Your task to perform on an android device: Show the shopping cart on walmart. Add "acer nitro" to the cart on walmart Image 0: 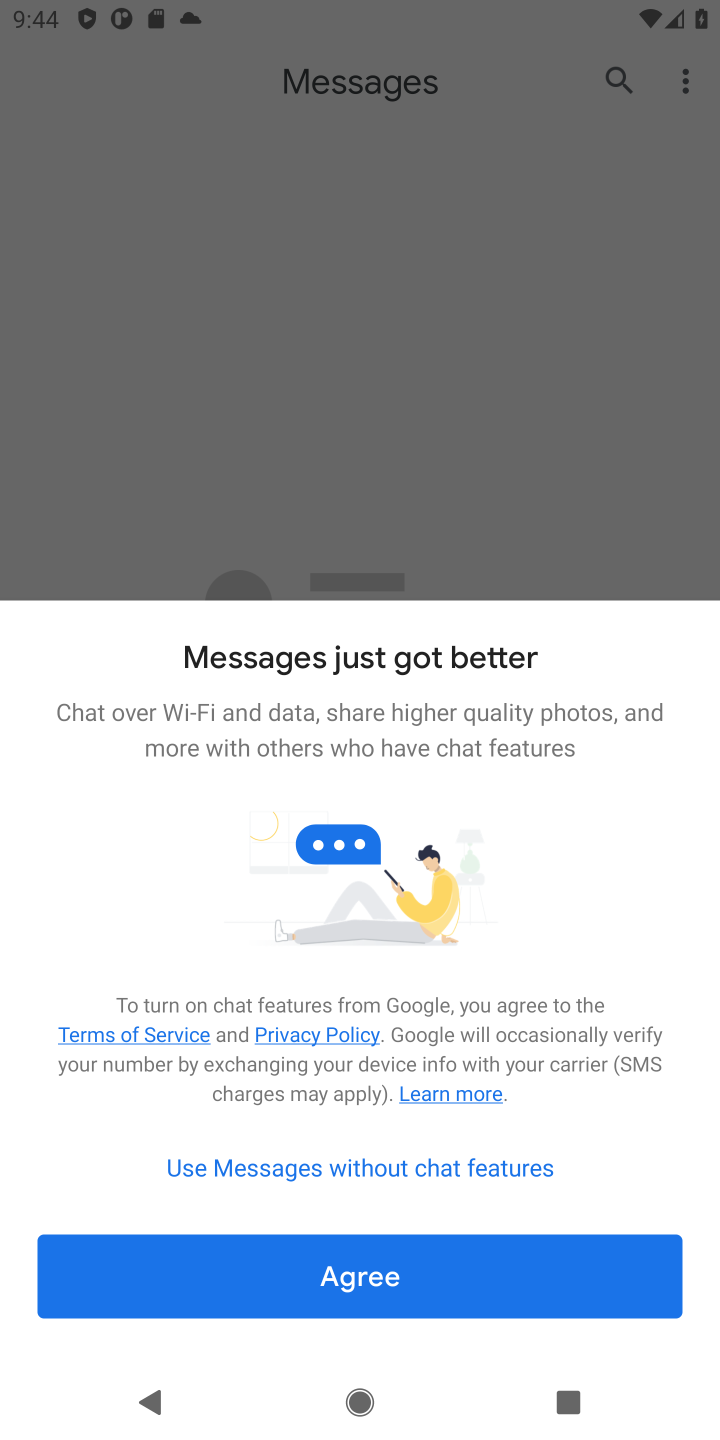
Step 0: press home button
Your task to perform on an android device: Show the shopping cart on walmart. Add "acer nitro" to the cart on walmart Image 1: 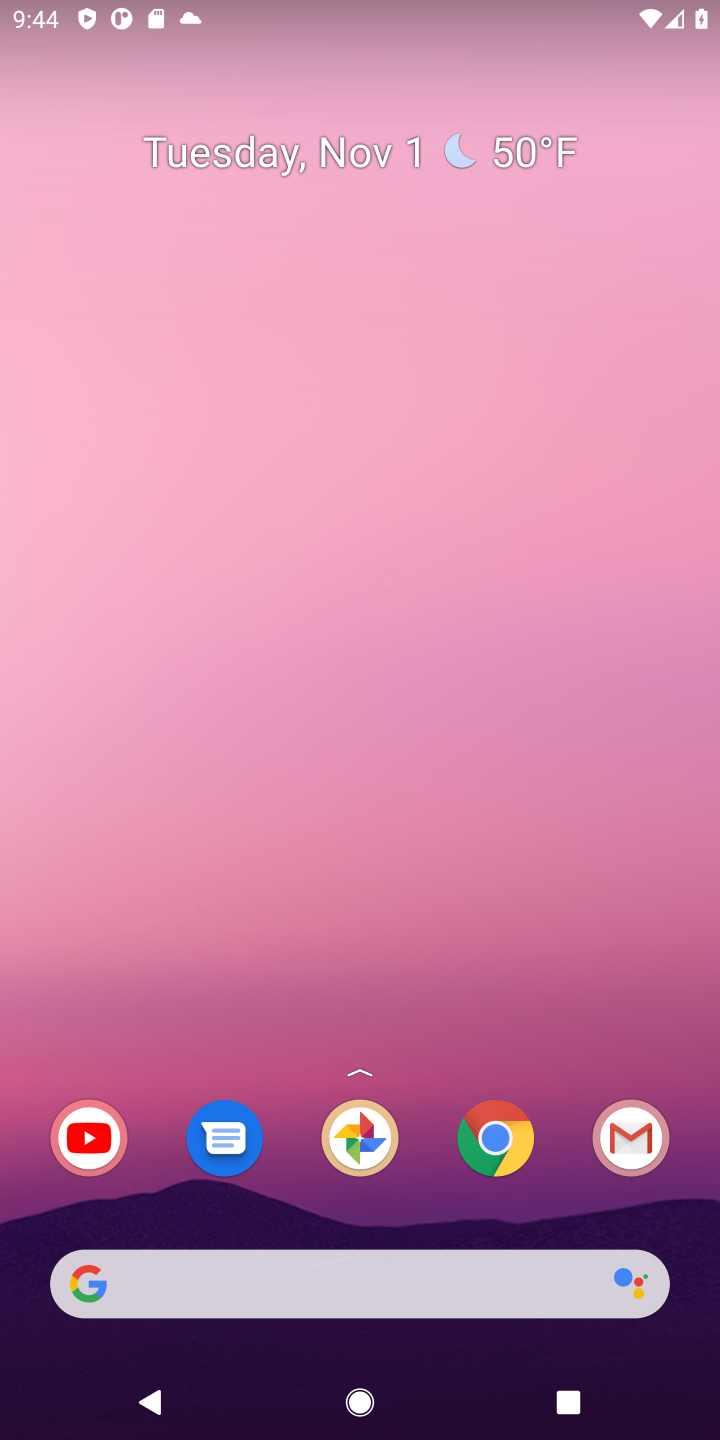
Step 1: click (499, 1139)
Your task to perform on an android device: Show the shopping cart on walmart. Add "acer nitro" to the cart on walmart Image 2: 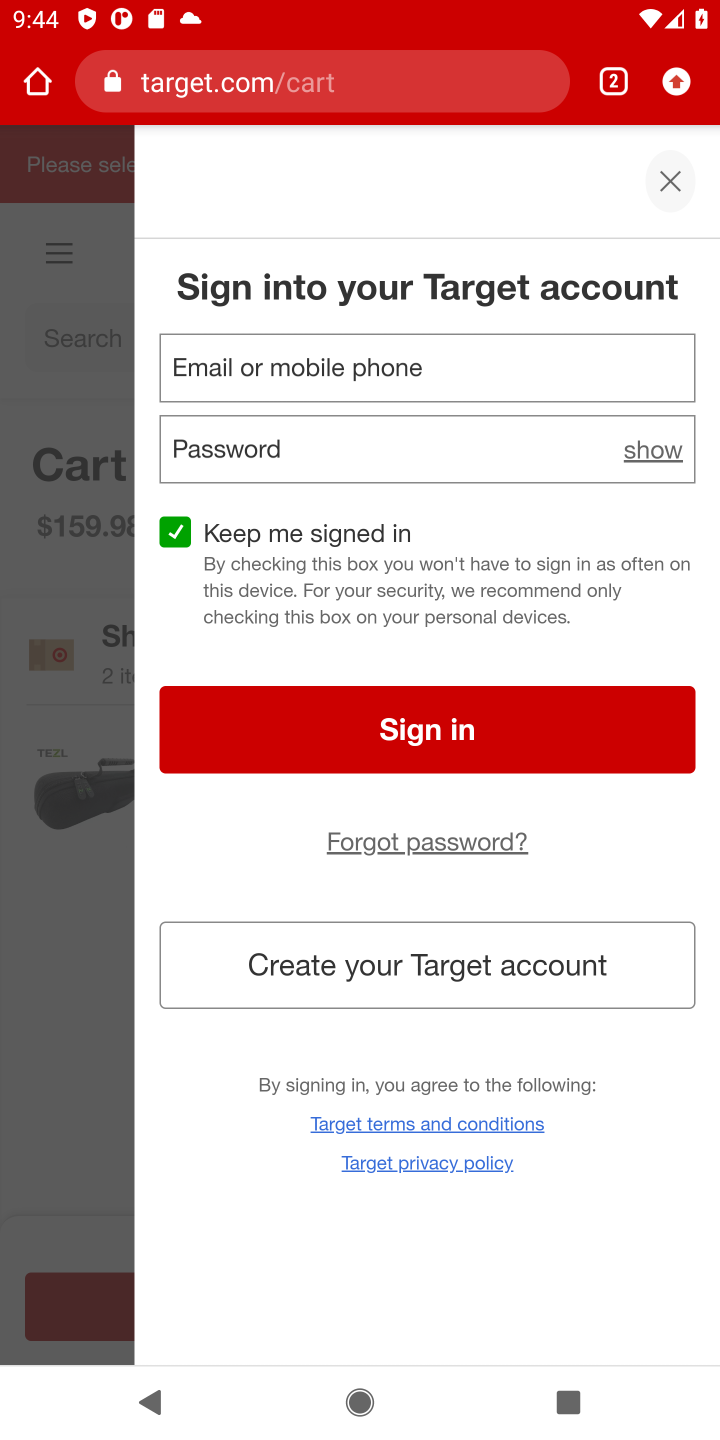
Step 2: click (315, 75)
Your task to perform on an android device: Show the shopping cart on walmart. Add "acer nitro" to the cart on walmart Image 3: 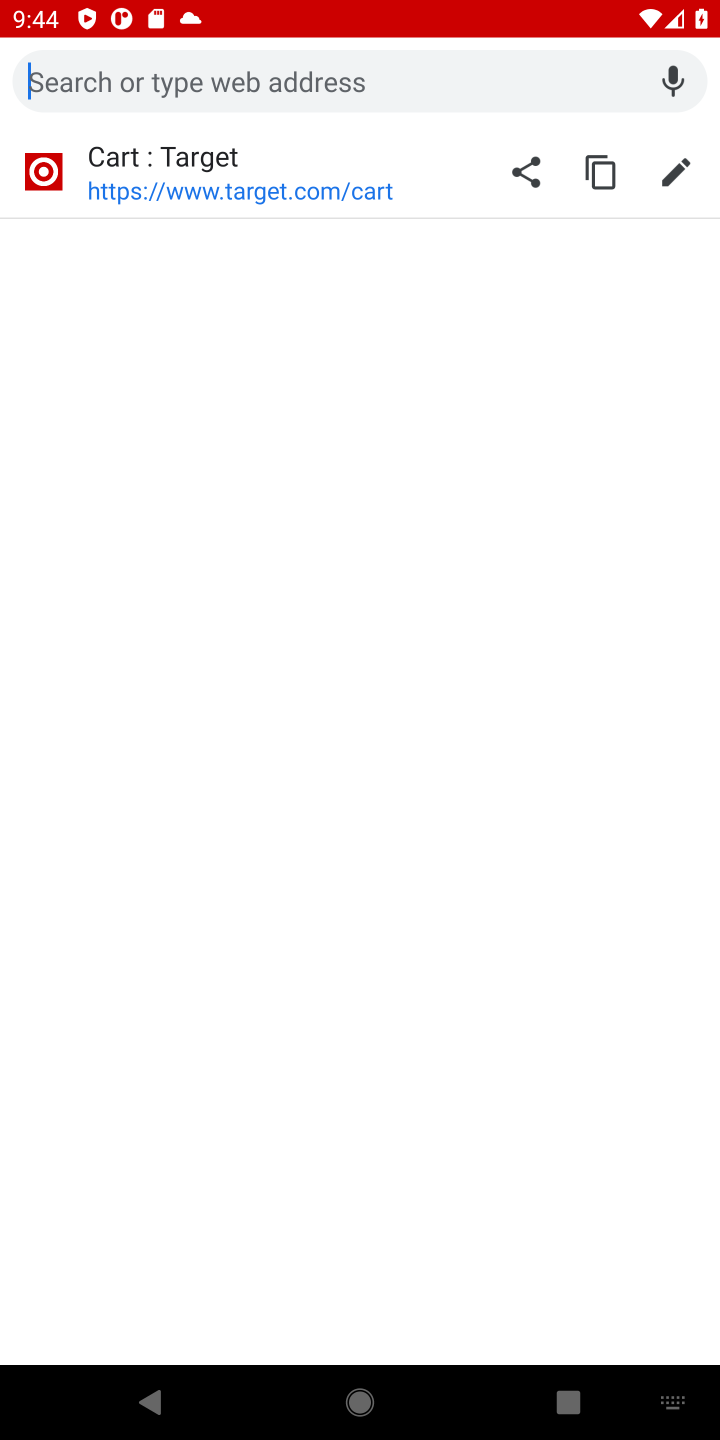
Step 3: type "walmart"
Your task to perform on an android device: Show the shopping cart on walmart. Add "acer nitro" to the cart on walmart Image 4: 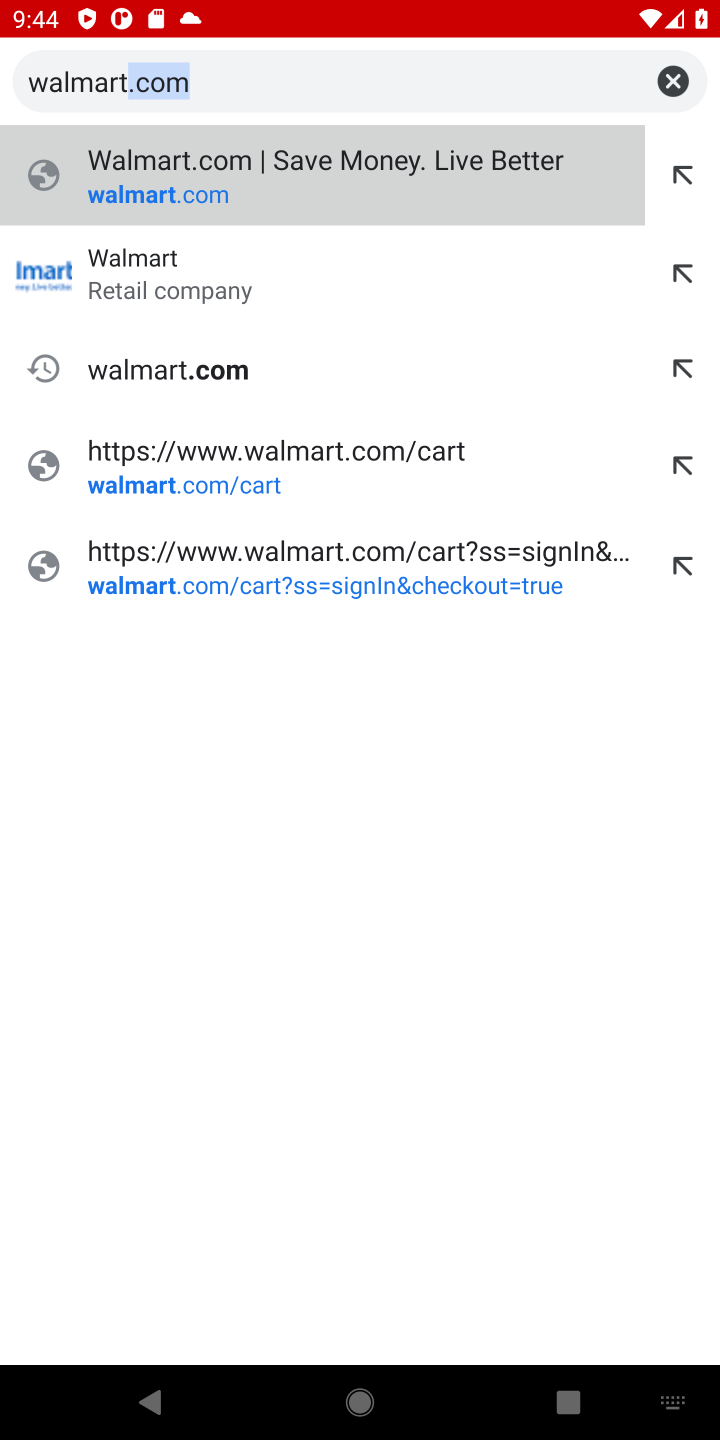
Step 4: click (148, 277)
Your task to perform on an android device: Show the shopping cart on walmart. Add "acer nitro" to the cart on walmart Image 5: 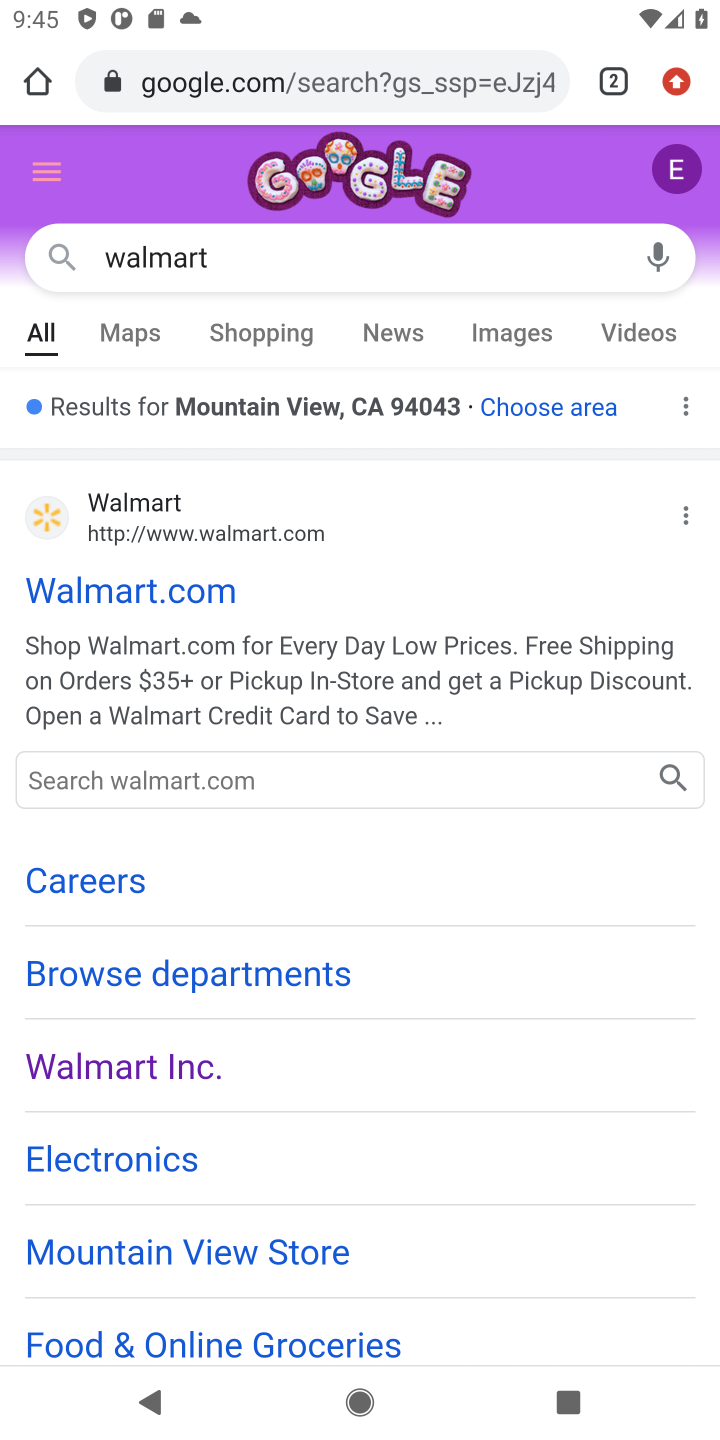
Step 5: click (216, 600)
Your task to perform on an android device: Show the shopping cart on walmart. Add "acer nitro" to the cart on walmart Image 6: 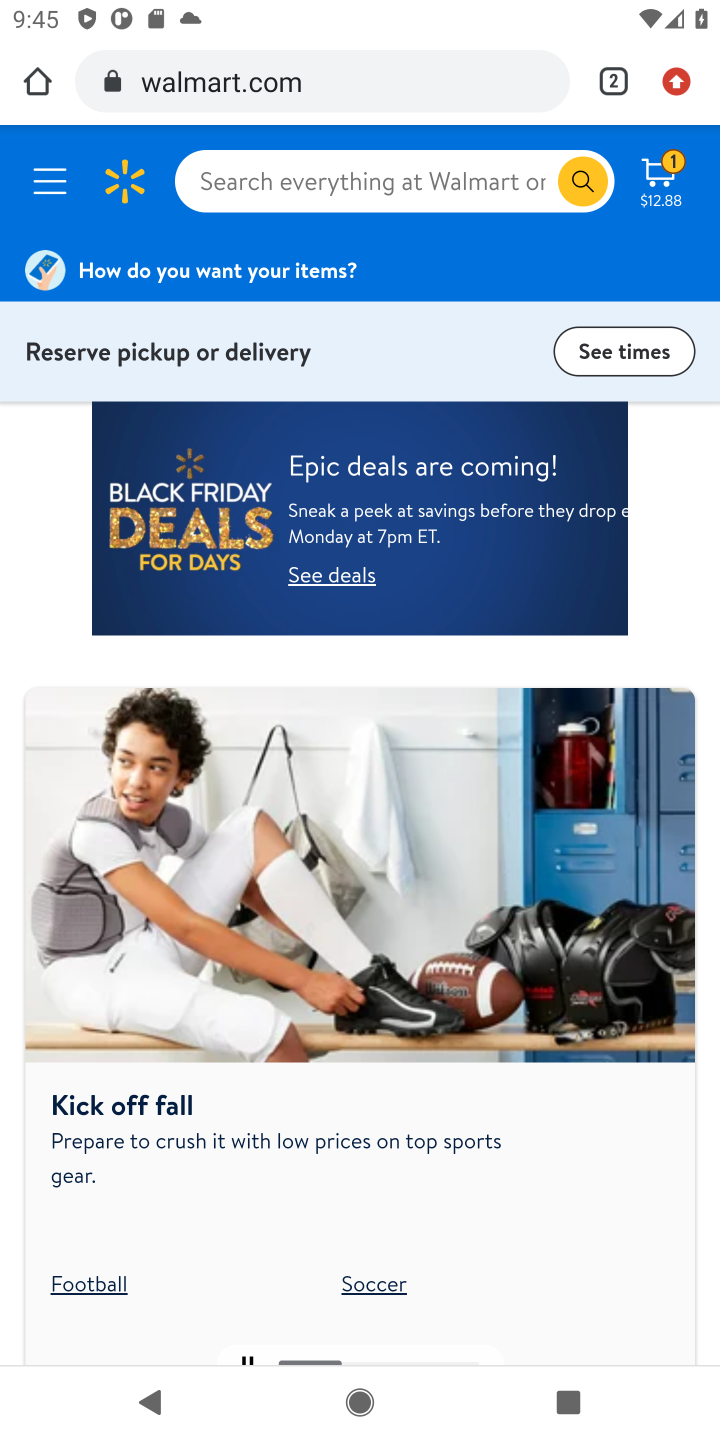
Step 6: click (401, 184)
Your task to perform on an android device: Show the shopping cart on walmart. Add "acer nitro" to the cart on walmart Image 7: 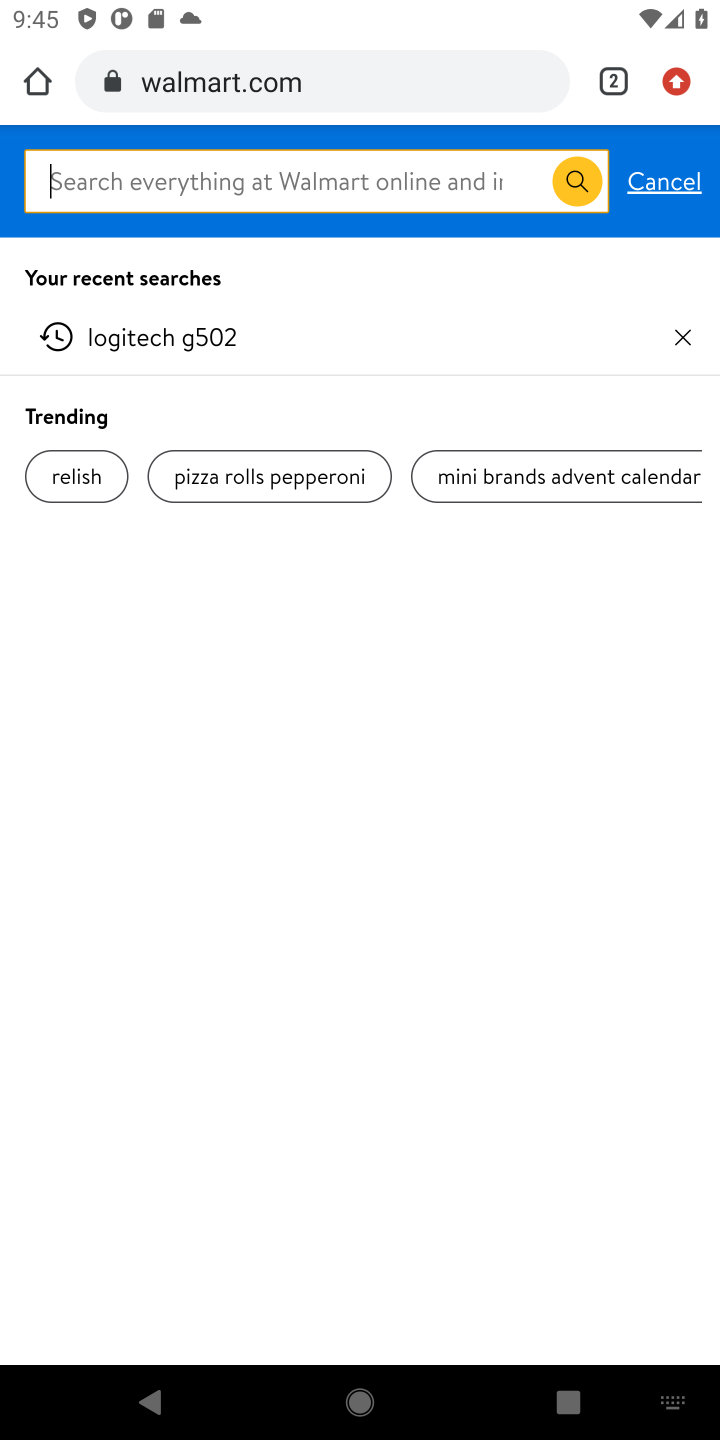
Step 7: type "acer nitro"
Your task to perform on an android device: Show the shopping cart on walmart. Add "acer nitro" to the cart on walmart Image 8: 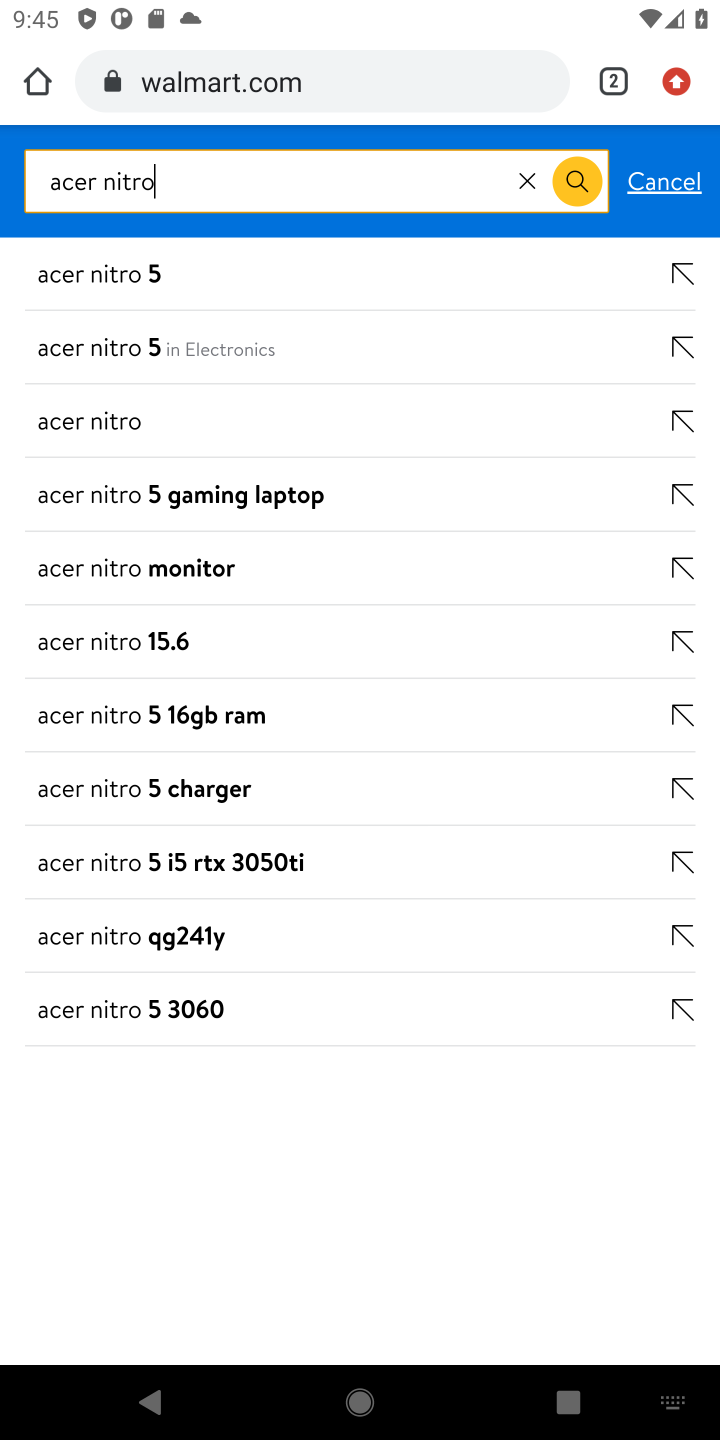
Step 8: click (580, 176)
Your task to perform on an android device: Show the shopping cart on walmart. Add "acer nitro" to the cart on walmart Image 9: 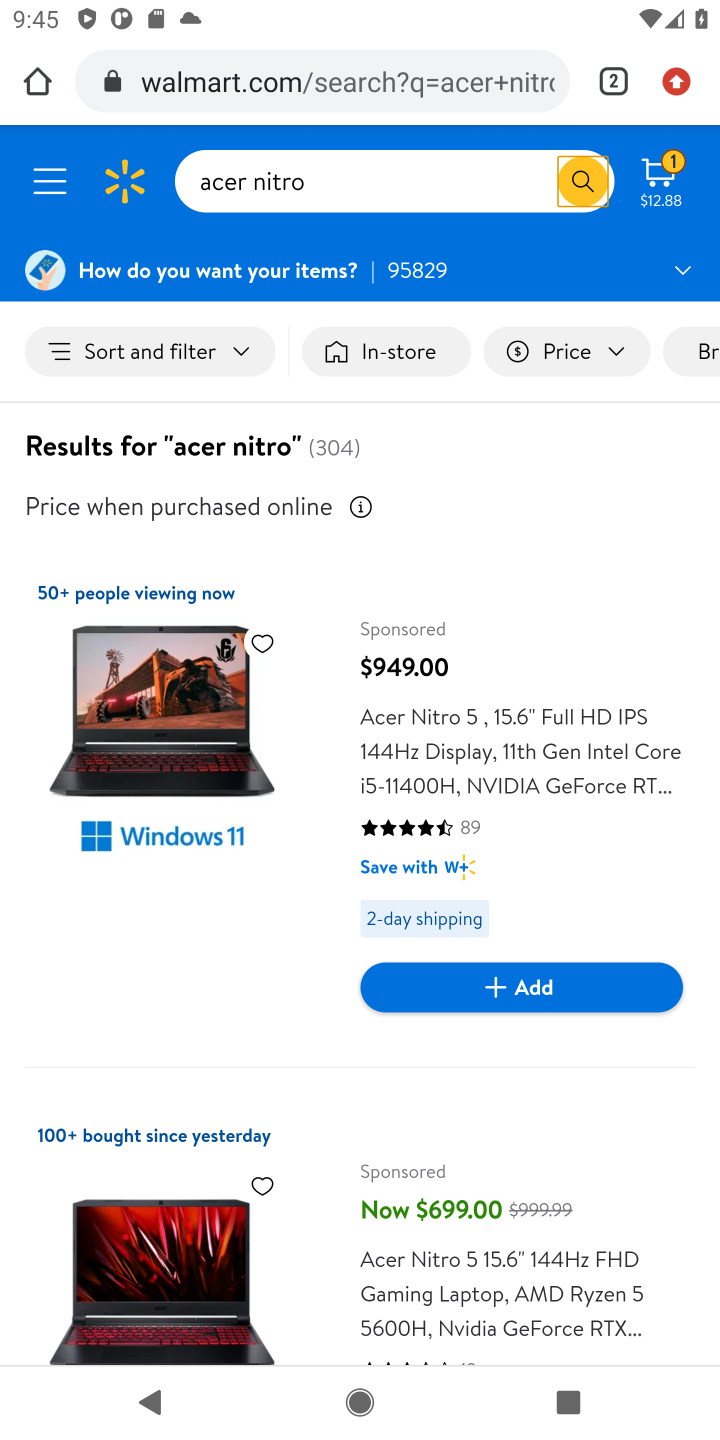
Step 9: click (447, 733)
Your task to perform on an android device: Show the shopping cart on walmart. Add "acer nitro" to the cart on walmart Image 10: 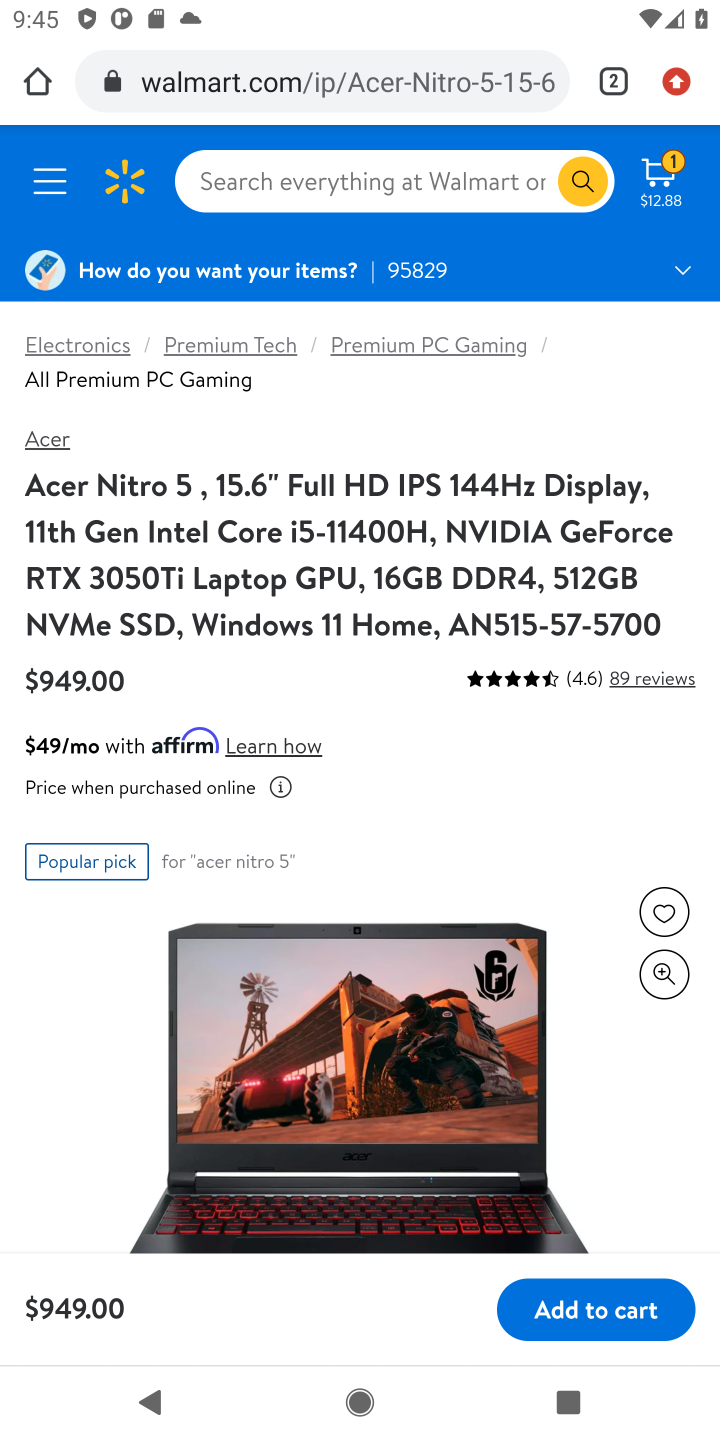
Step 10: click (607, 1315)
Your task to perform on an android device: Show the shopping cart on walmart. Add "acer nitro" to the cart on walmart Image 11: 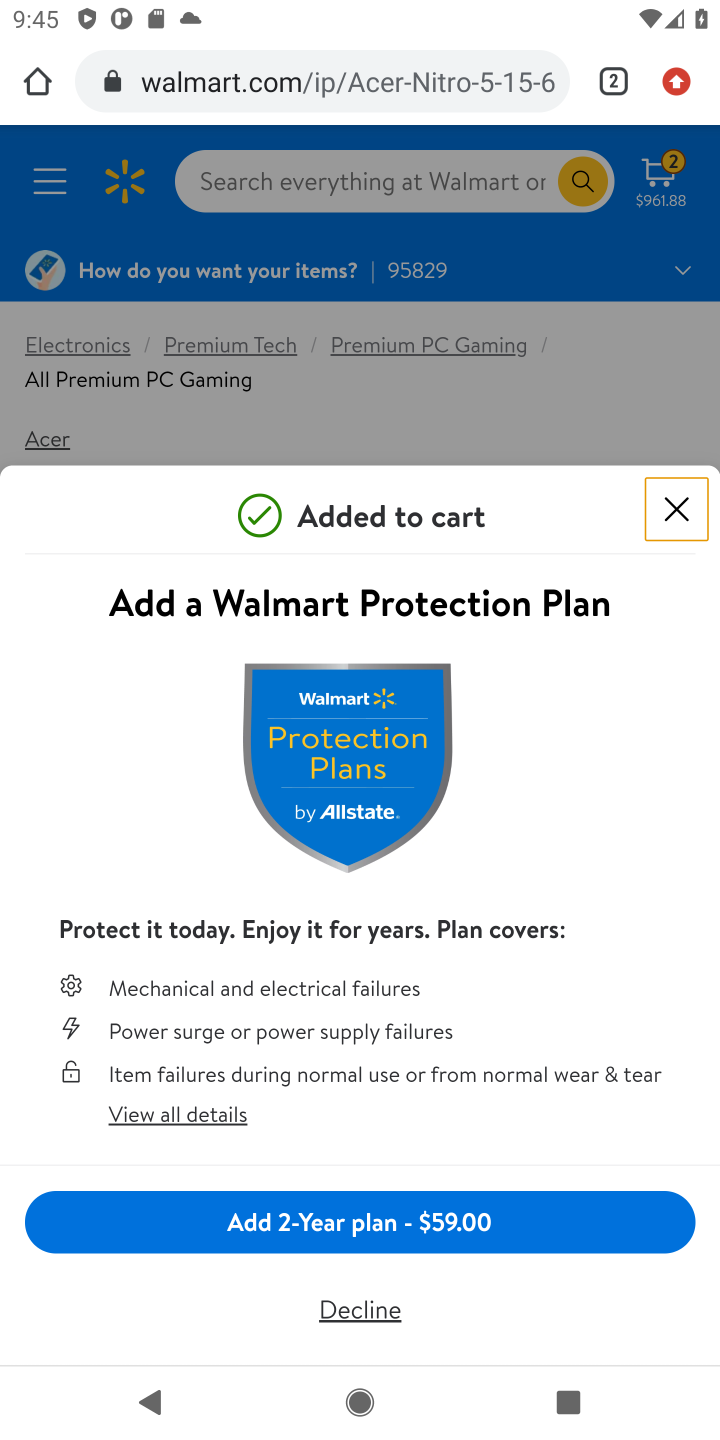
Step 11: click (368, 1315)
Your task to perform on an android device: Show the shopping cart on walmart. Add "acer nitro" to the cart on walmart Image 12: 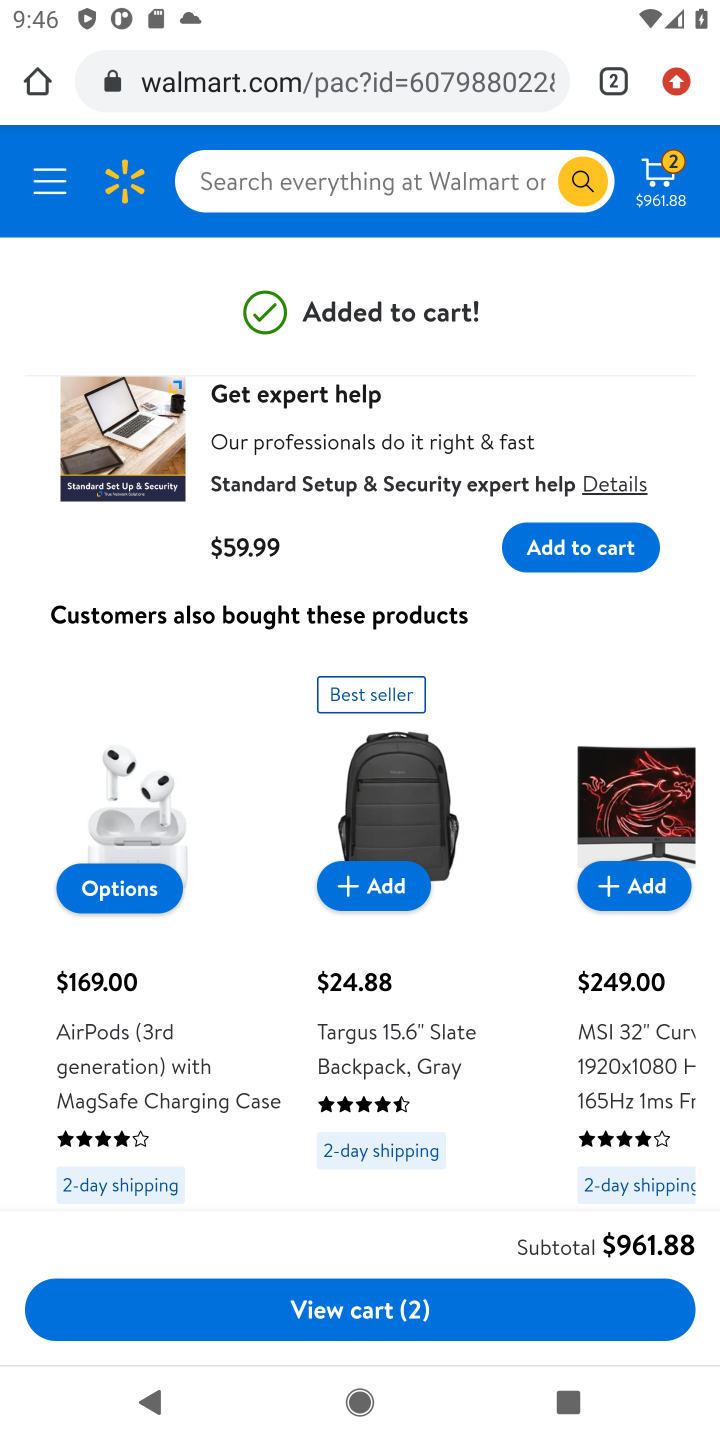
Step 12: task complete